Your task to perform on an android device: turn on the 24-hour format for clock Image 0: 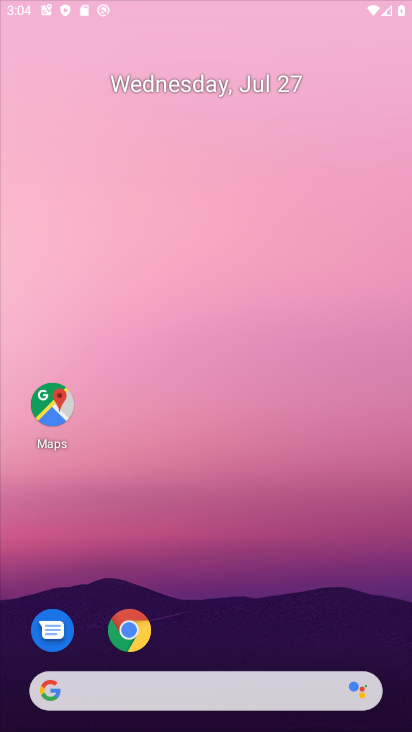
Step 0: click (120, 242)
Your task to perform on an android device: turn on the 24-hour format for clock Image 1: 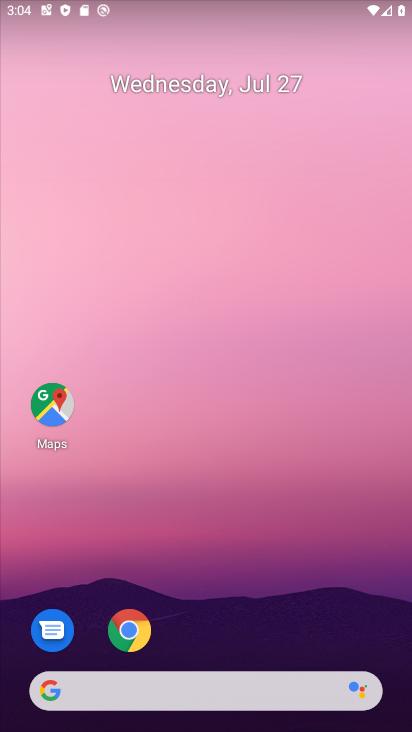
Step 1: drag from (131, 494) to (124, 187)
Your task to perform on an android device: turn on the 24-hour format for clock Image 2: 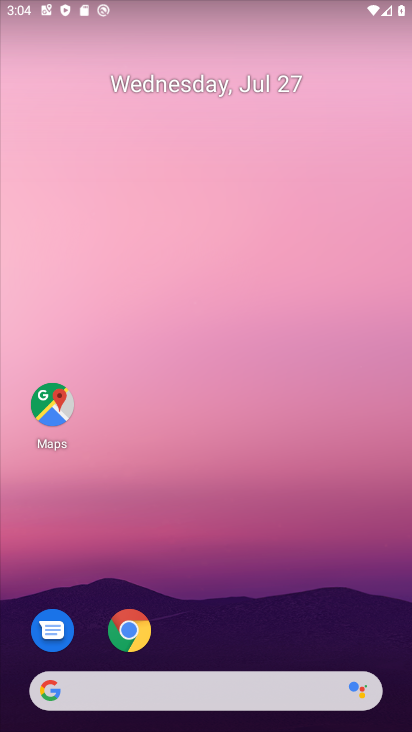
Step 2: drag from (190, 528) to (175, 411)
Your task to perform on an android device: turn on the 24-hour format for clock Image 3: 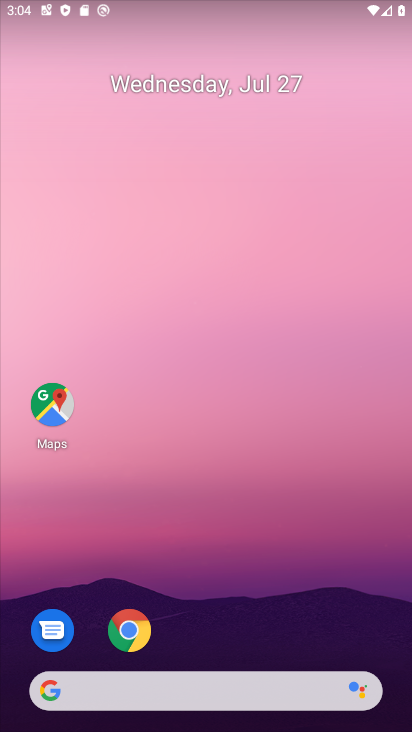
Step 3: drag from (193, 526) to (163, 339)
Your task to perform on an android device: turn on the 24-hour format for clock Image 4: 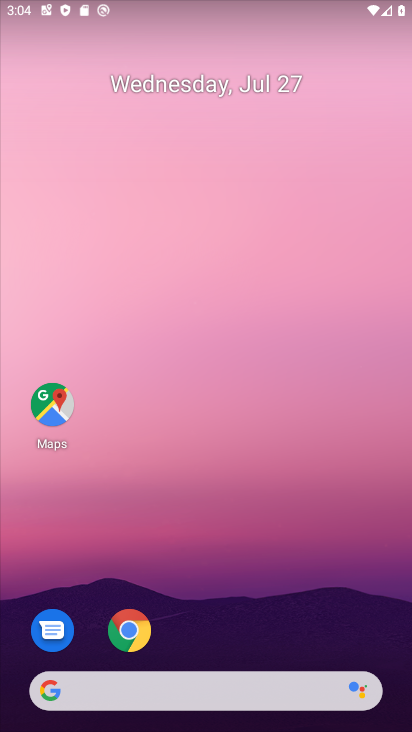
Step 4: drag from (189, 536) to (142, 276)
Your task to perform on an android device: turn on the 24-hour format for clock Image 5: 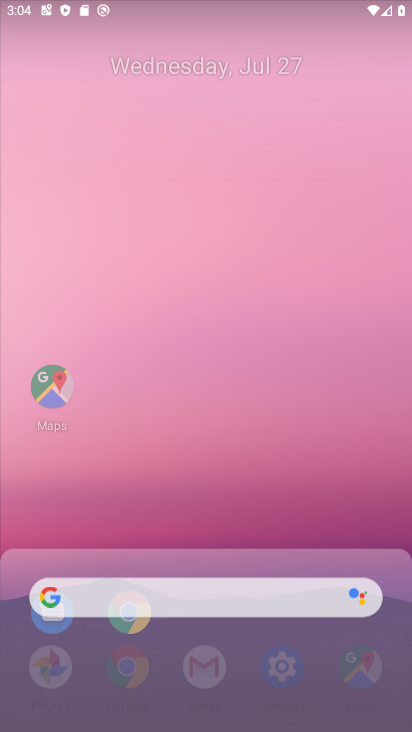
Step 5: drag from (218, 564) to (215, 359)
Your task to perform on an android device: turn on the 24-hour format for clock Image 6: 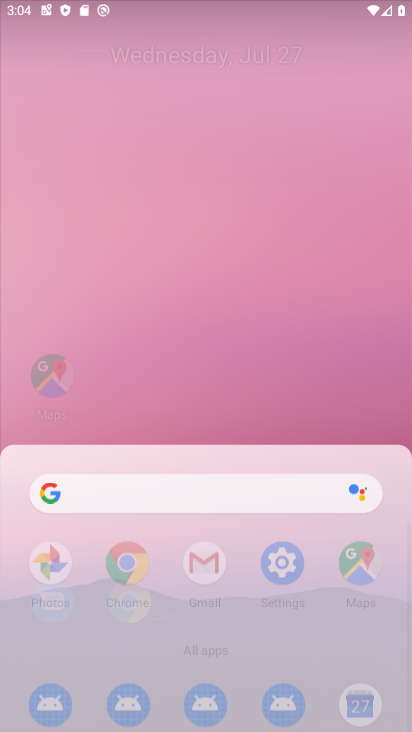
Step 6: drag from (268, 645) to (228, 377)
Your task to perform on an android device: turn on the 24-hour format for clock Image 7: 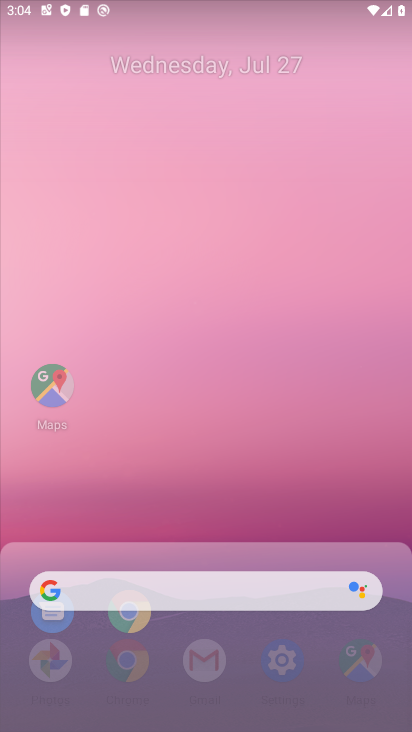
Step 7: drag from (194, 324) to (181, 239)
Your task to perform on an android device: turn on the 24-hour format for clock Image 8: 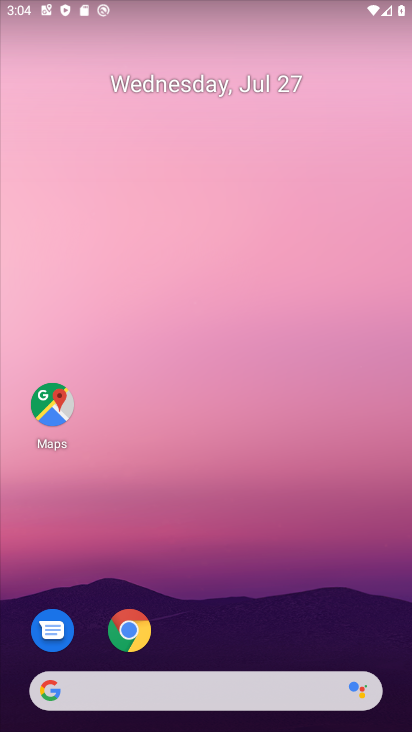
Step 8: drag from (221, 513) to (183, 246)
Your task to perform on an android device: turn on the 24-hour format for clock Image 9: 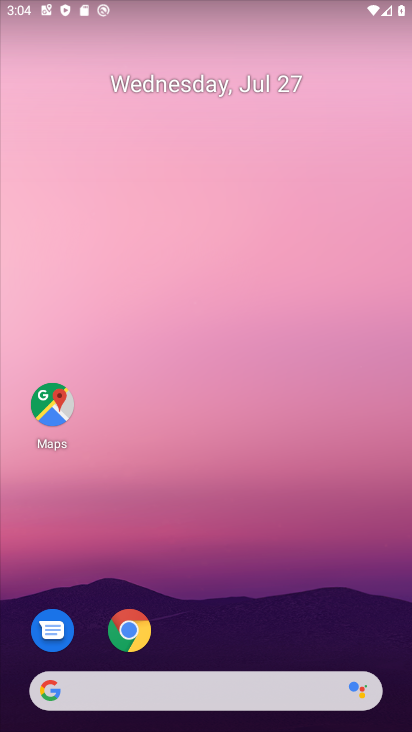
Step 9: drag from (222, 557) to (216, 444)
Your task to perform on an android device: turn on the 24-hour format for clock Image 10: 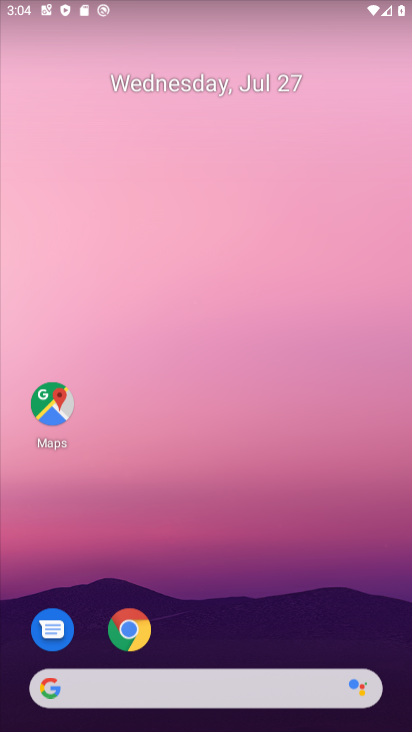
Step 10: drag from (253, 617) to (188, 304)
Your task to perform on an android device: turn on the 24-hour format for clock Image 11: 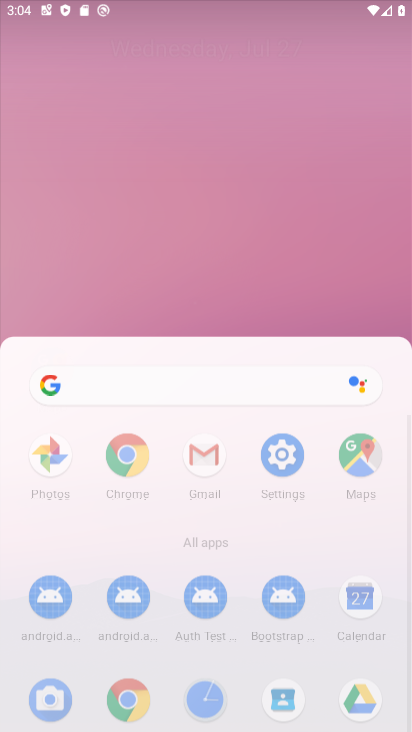
Step 11: drag from (267, 553) to (186, 101)
Your task to perform on an android device: turn on the 24-hour format for clock Image 12: 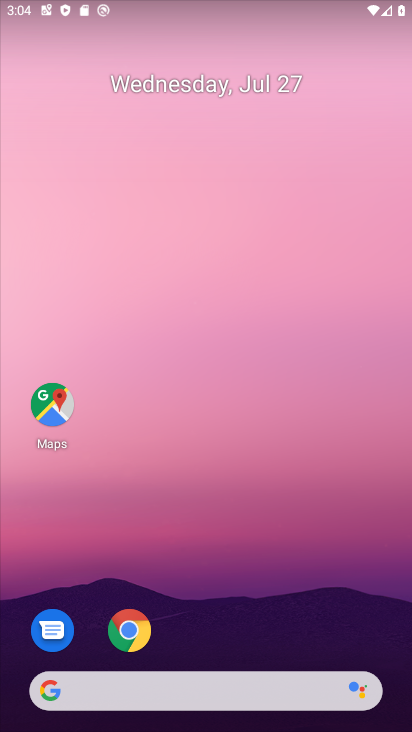
Step 12: drag from (246, 533) to (145, 149)
Your task to perform on an android device: turn on the 24-hour format for clock Image 13: 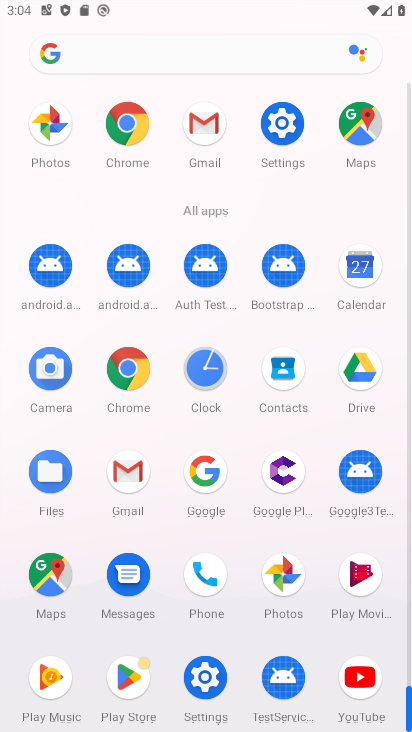
Step 13: click (197, 368)
Your task to perform on an android device: turn on the 24-hour format for clock Image 14: 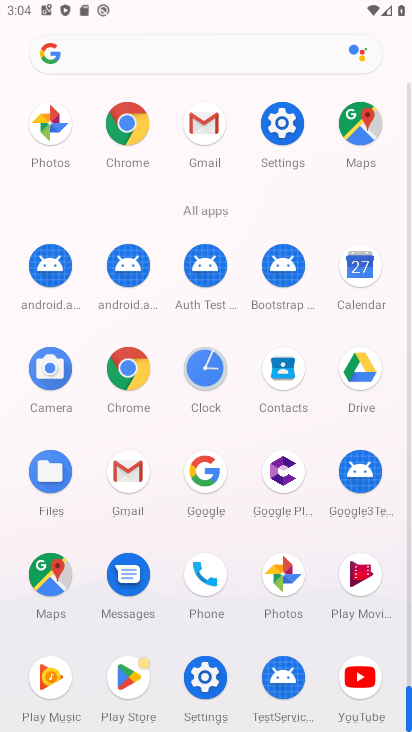
Step 14: click (198, 369)
Your task to perform on an android device: turn on the 24-hour format for clock Image 15: 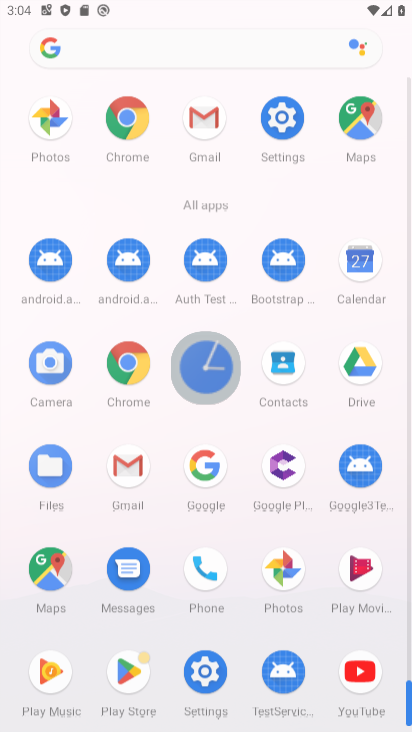
Step 15: click (201, 373)
Your task to perform on an android device: turn on the 24-hour format for clock Image 16: 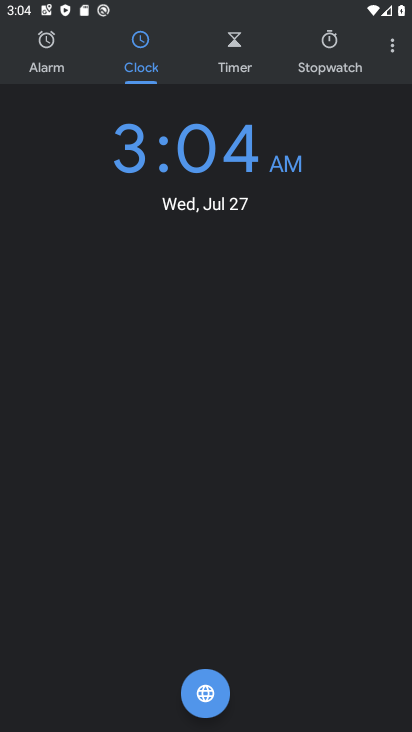
Step 16: click (394, 50)
Your task to perform on an android device: turn on the 24-hour format for clock Image 17: 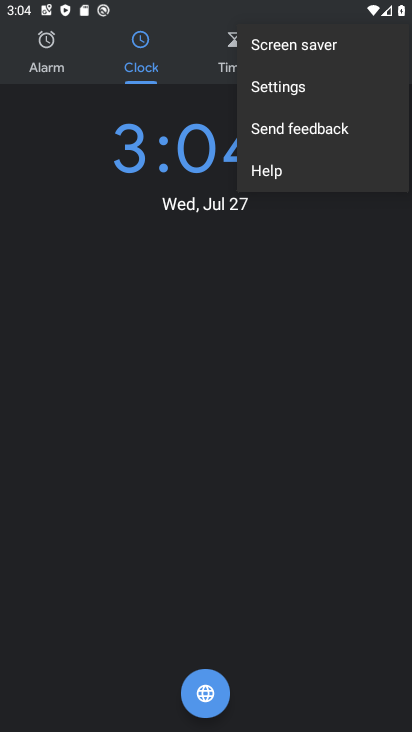
Step 17: click (282, 93)
Your task to perform on an android device: turn on the 24-hour format for clock Image 18: 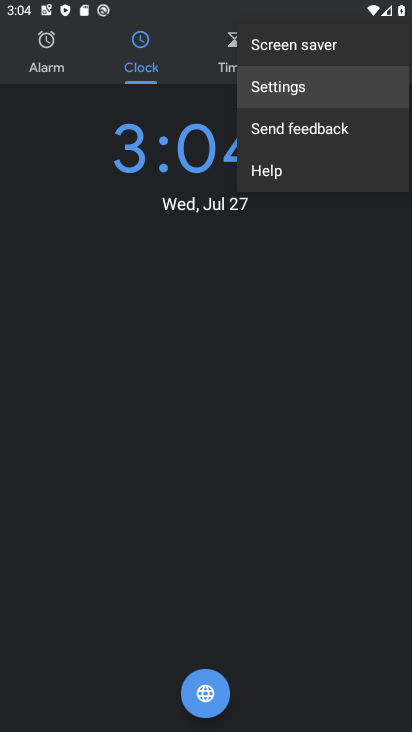
Step 18: click (282, 93)
Your task to perform on an android device: turn on the 24-hour format for clock Image 19: 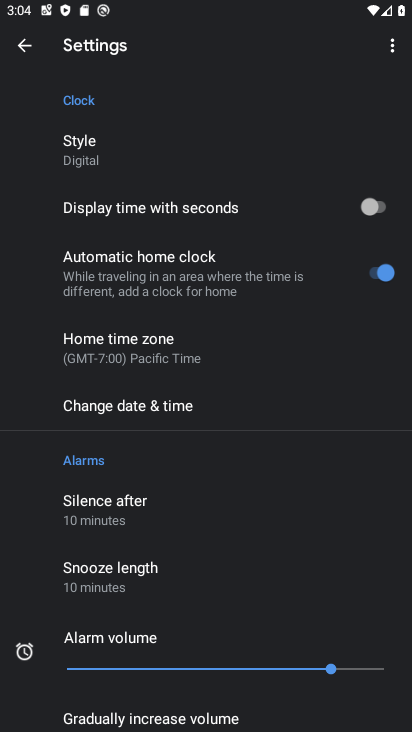
Step 19: click (108, 394)
Your task to perform on an android device: turn on the 24-hour format for clock Image 20: 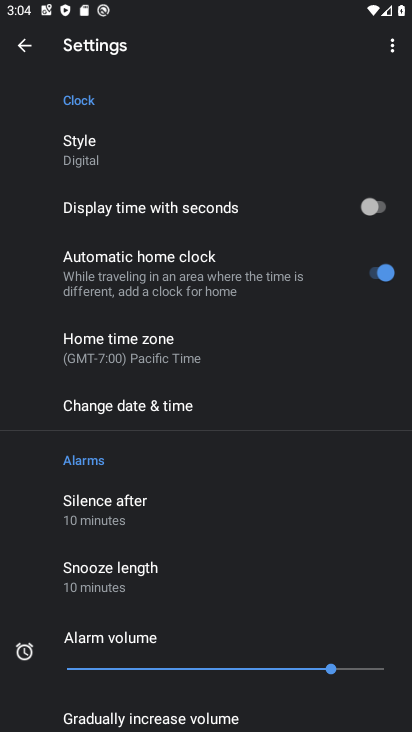
Step 20: click (119, 414)
Your task to perform on an android device: turn on the 24-hour format for clock Image 21: 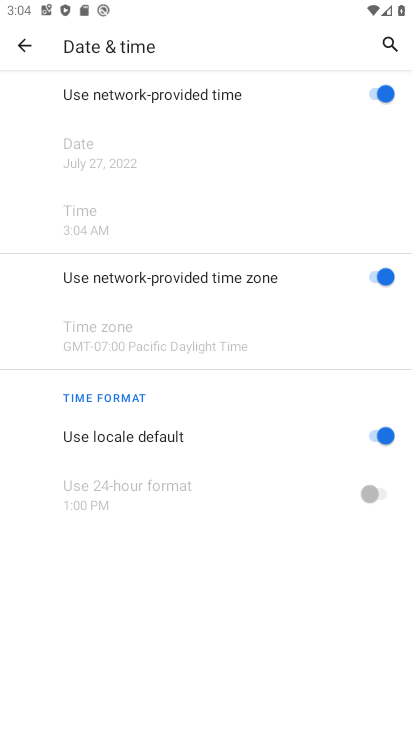
Step 21: click (382, 434)
Your task to perform on an android device: turn on the 24-hour format for clock Image 22: 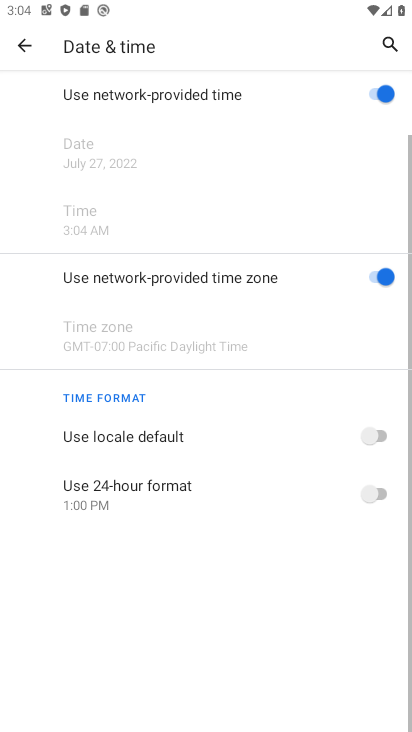
Step 22: click (375, 496)
Your task to perform on an android device: turn on the 24-hour format for clock Image 23: 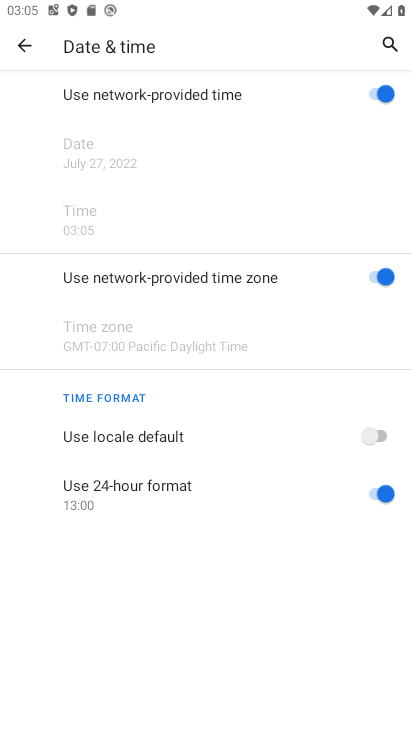
Step 23: task complete